Your task to perform on an android device: allow notifications from all sites in the chrome app Image 0: 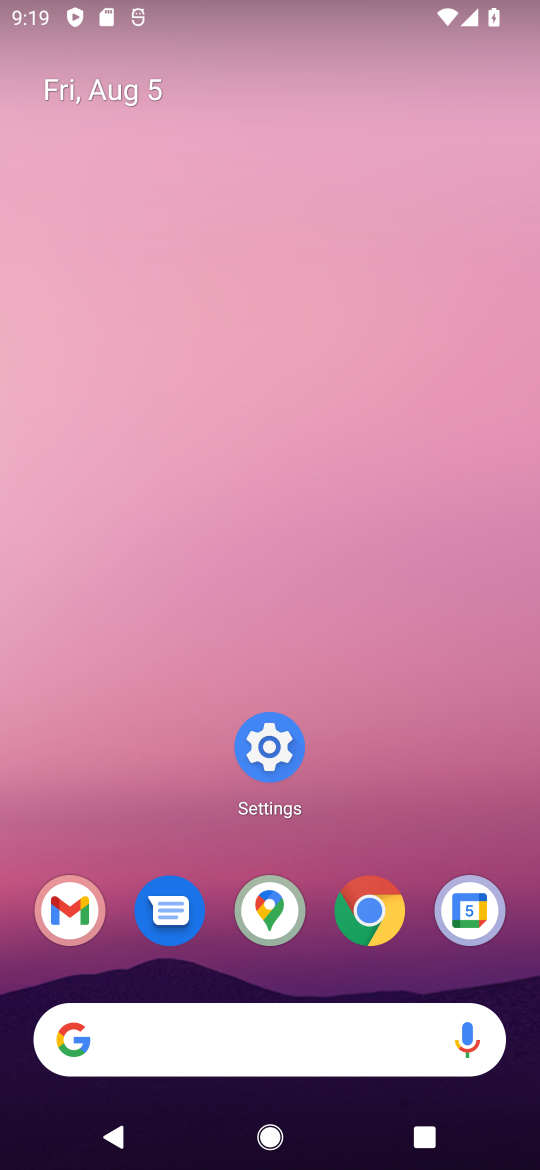
Step 0: click (371, 910)
Your task to perform on an android device: allow notifications from all sites in the chrome app Image 1: 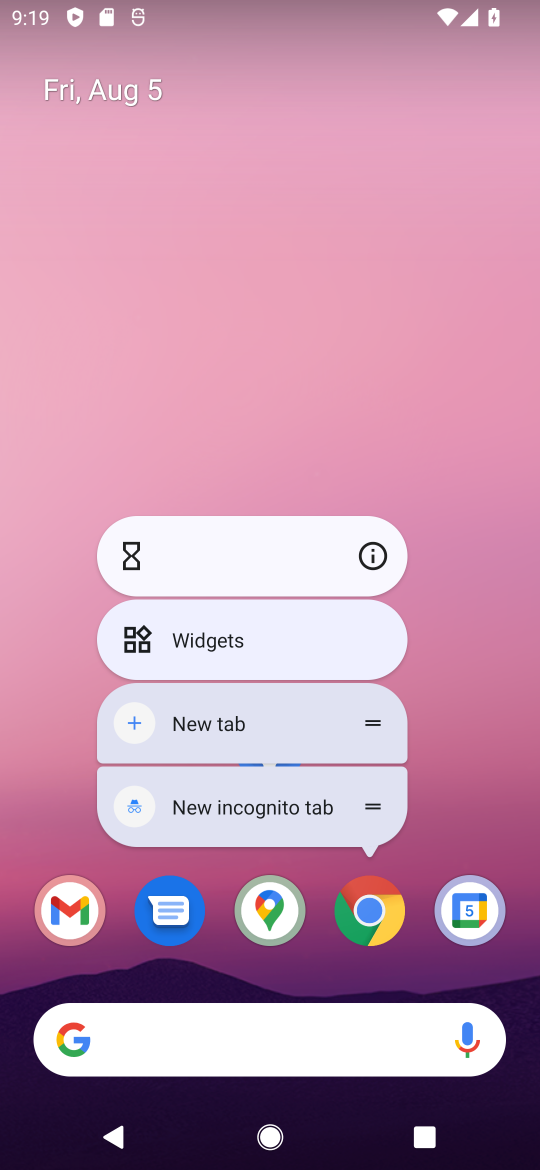
Step 1: click (370, 913)
Your task to perform on an android device: allow notifications from all sites in the chrome app Image 2: 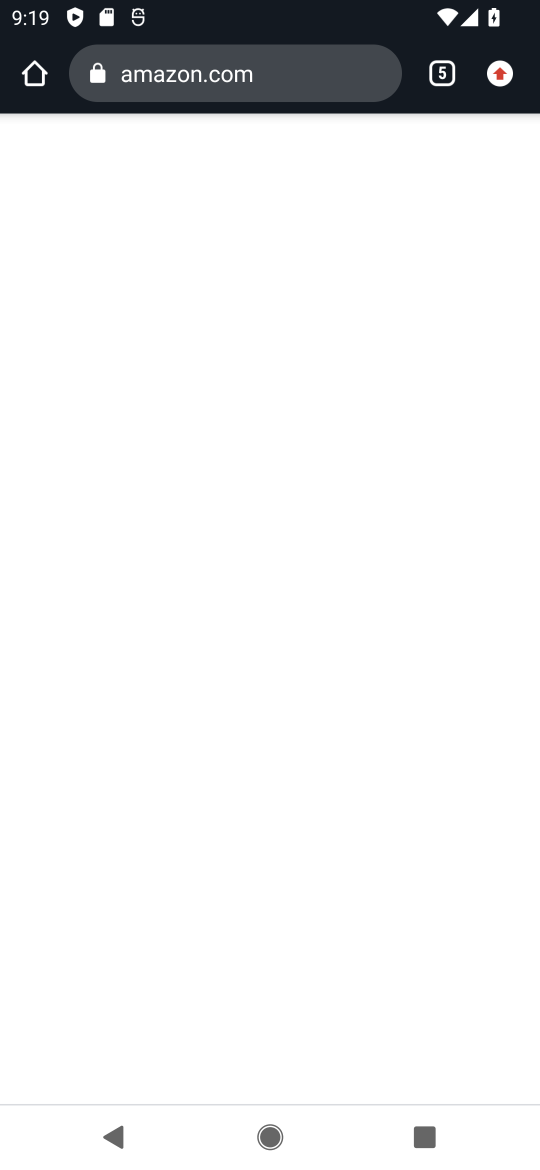
Step 2: drag from (506, 82) to (349, 937)
Your task to perform on an android device: allow notifications from all sites in the chrome app Image 3: 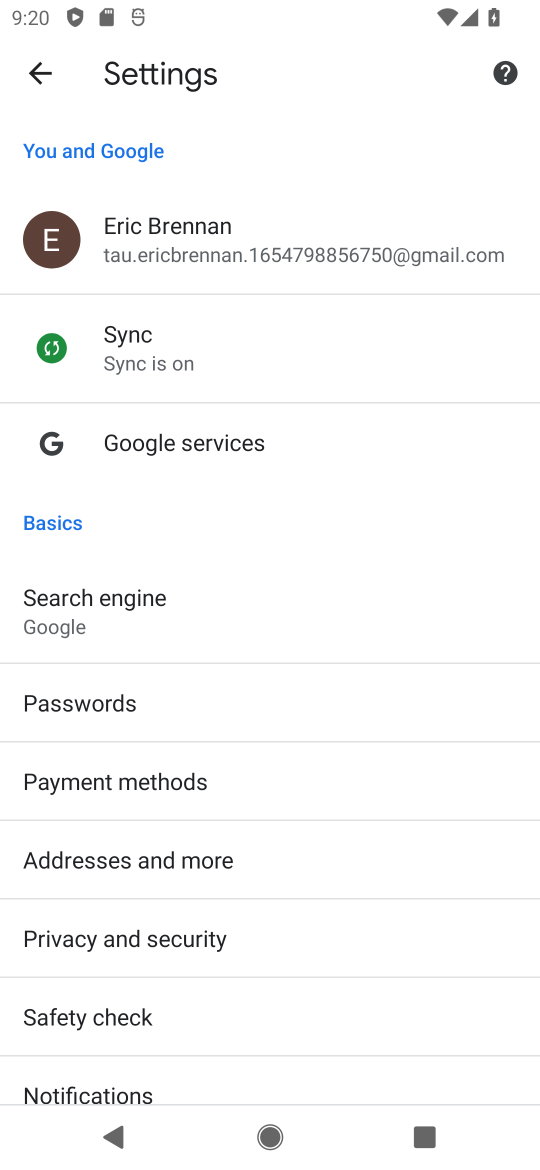
Step 3: drag from (211, 1024) to (459, 360)
Your task to perform on an android device: allow notifications from all sites in the chrome app Image 4: 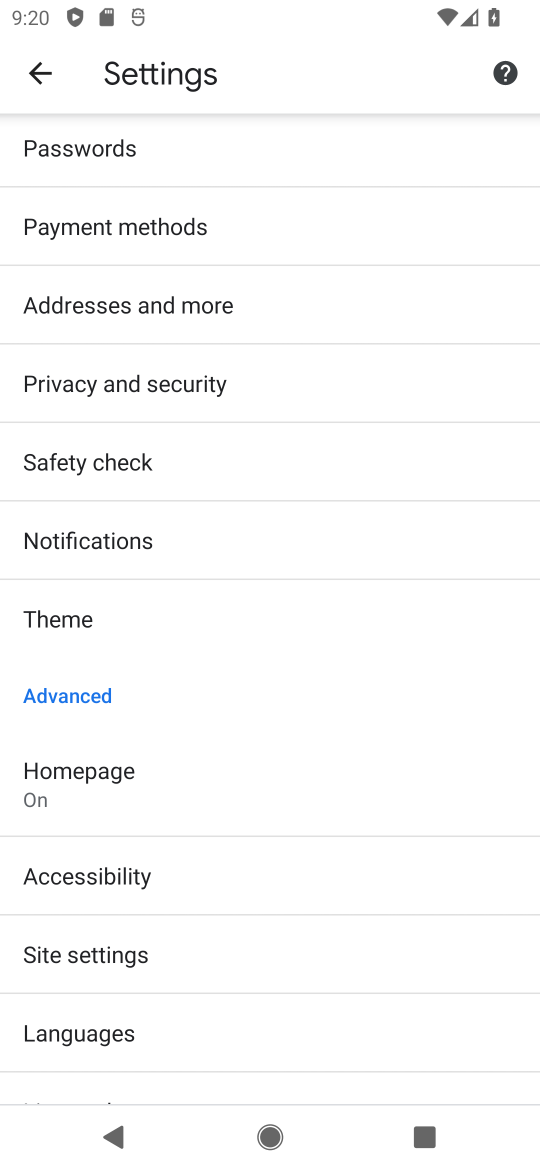
Step 4: click (151, 956)
Your task to perform on an android device: allow notifications from all sites in the chrome app Image 5: 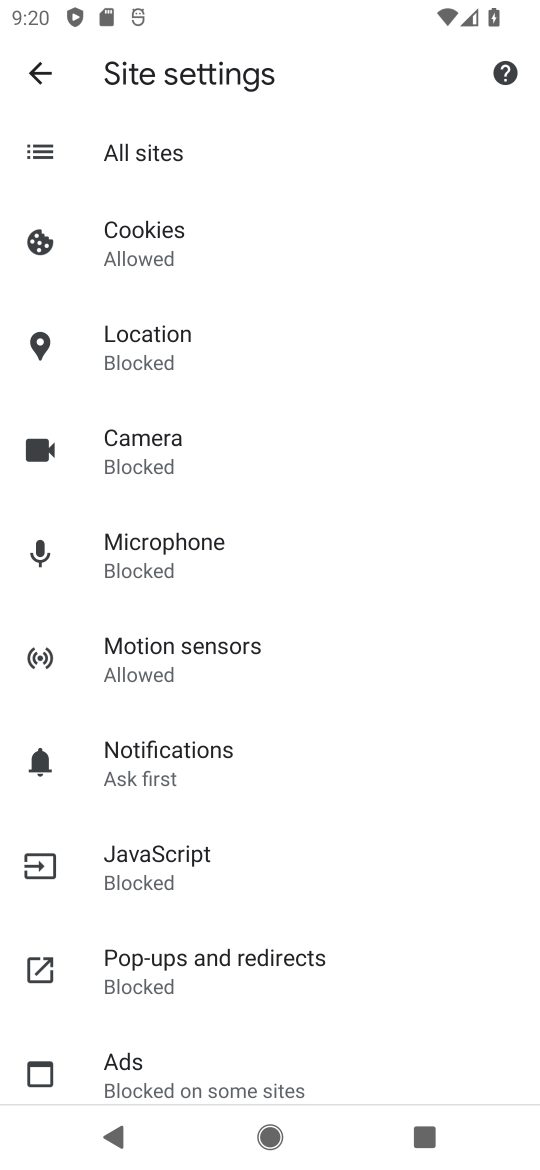
Step 5: click (177, 745)
Your task to perform on an android device: allow notifications from all sites in the chrome app Image 6: 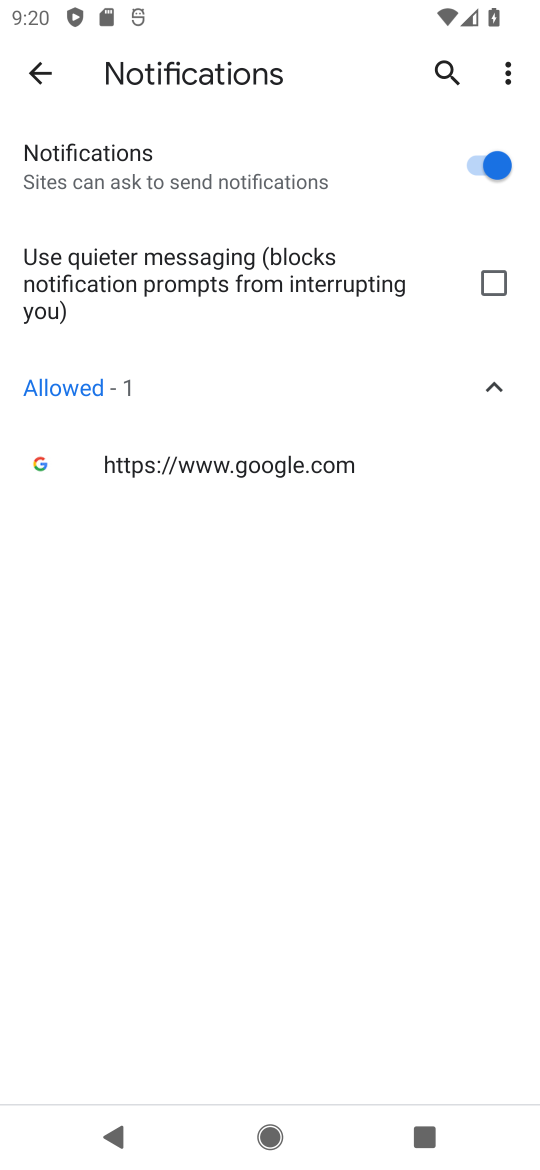
Step 6: task complete